Your task to perform on an android device: Open calendar and show me the first week of next month Image 0: 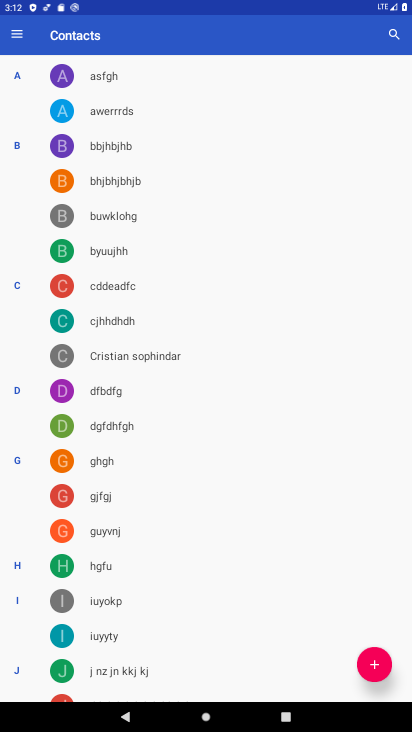
Step 0: press home button
Your task to perform on an android device: Open calendar and show me the first week of next month Image 1: 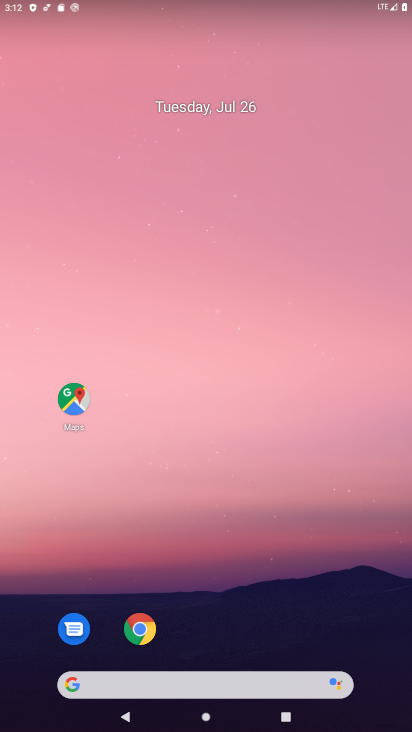
Step 1: drag from (222, 725) to (225, 402)
Your task to perform on an android device: Open calendar and show me the first week of next month Image 2: 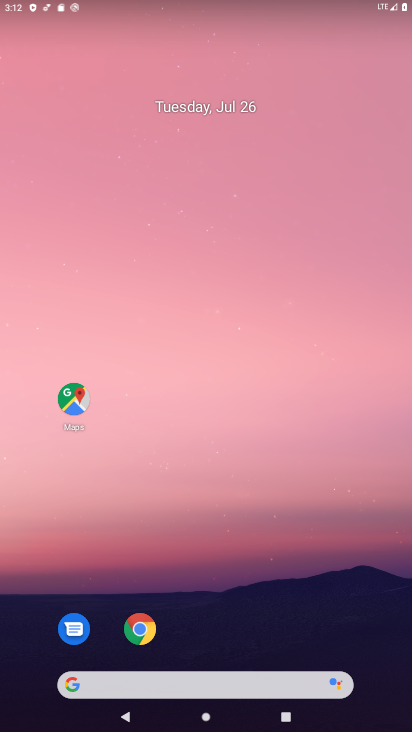
Step 2: drag from (225, 726) to (221, 107)
Your task to perform on an android device: Open calendar and show me the first week of next month Image 3: 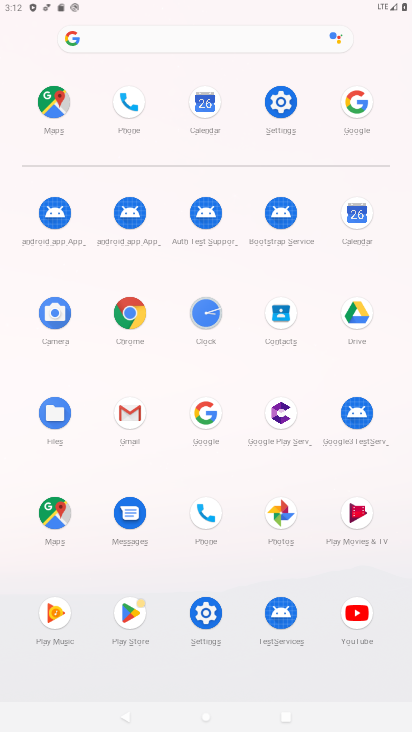
Step 3: click (356, 220)
Your task to perform on an android device: Open calendar and show me the first week of next month Image 4: 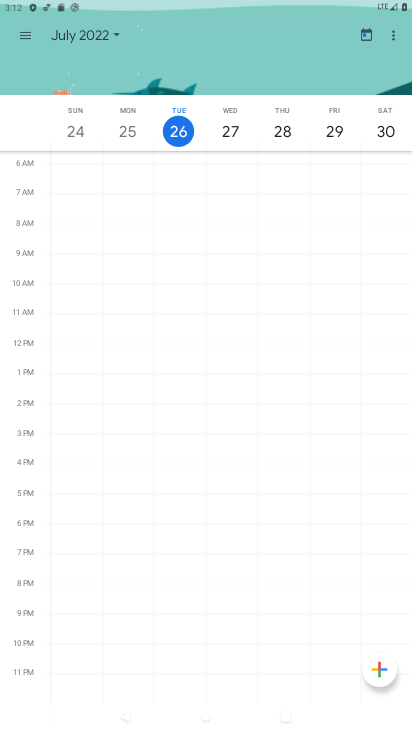
Step 4: click (113, 29)
Your task to perform on an android device: Open calendar and show me the first week of next month Image 5: 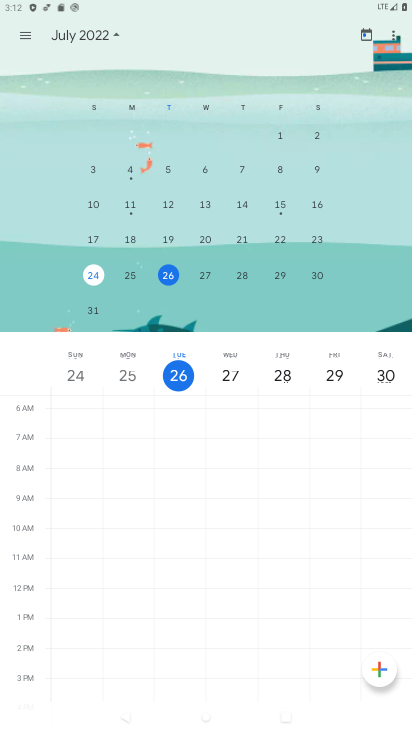
Step 5: drag from (289, 220) to (49, 209)
Your task to perform on an android device: Open calendar and show me the first week of next month Image 6: 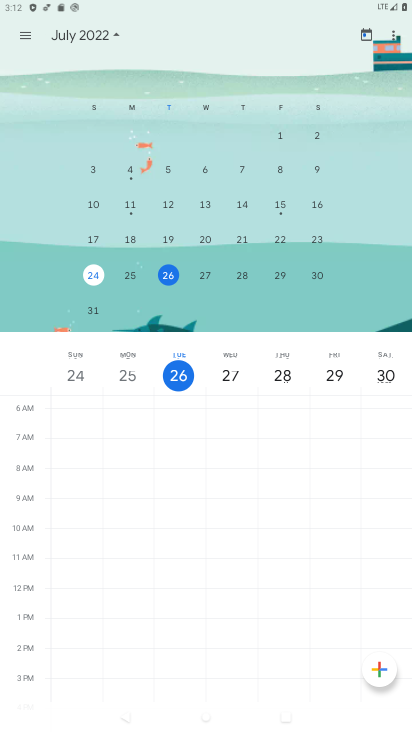
Step 6: click (130, 169)
Your task to perform on an android device: Open calendar and show me the first week of next month Image 7: 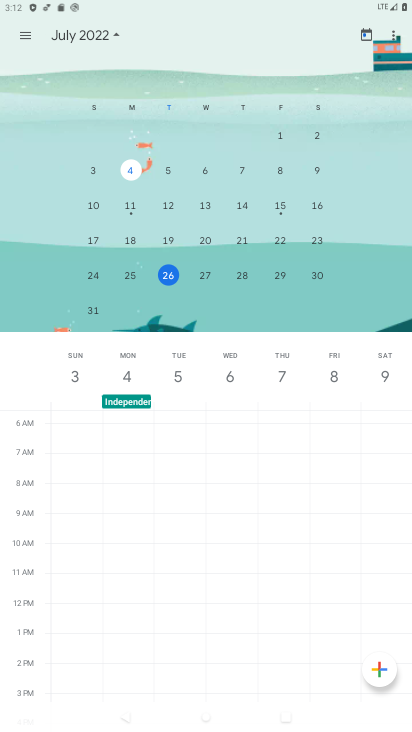
Step 7: click (22, 37)
Your task to perform on an android device: Open calendar and show me the first week of next month Image 8: 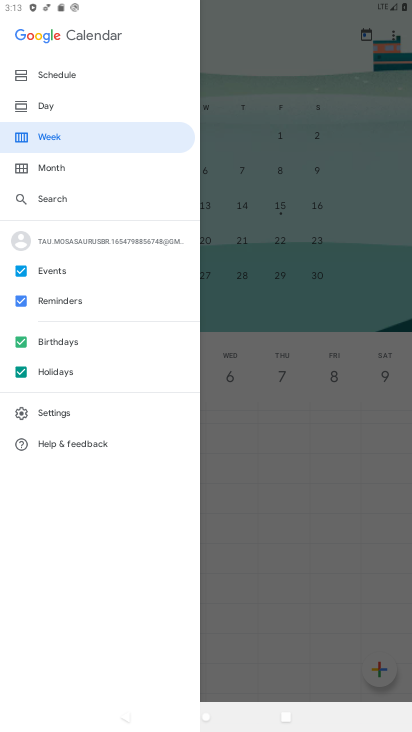
Step 8: click (56, 140)
Your task to perform on an android device: Open calendar and show me the first week of next month Image 9: 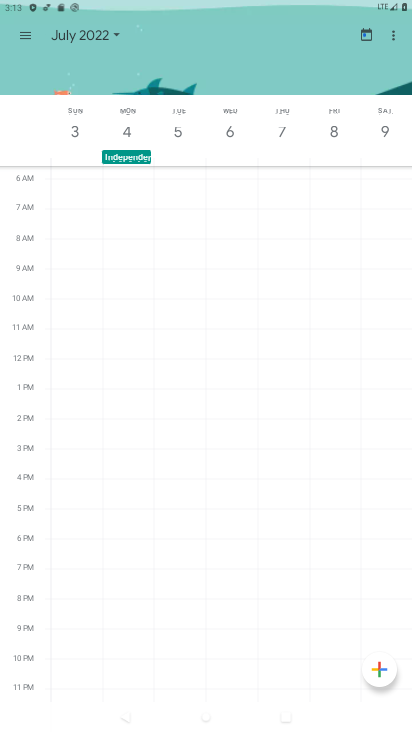
Step 9: task complete